Your task to perform on an android device: set the timer Image 0: 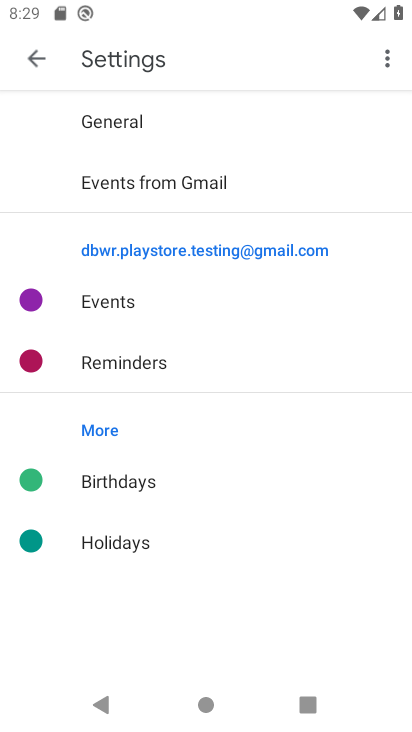
Step 0: press home button
Your task to perform on an android device: set the timer Image 1: 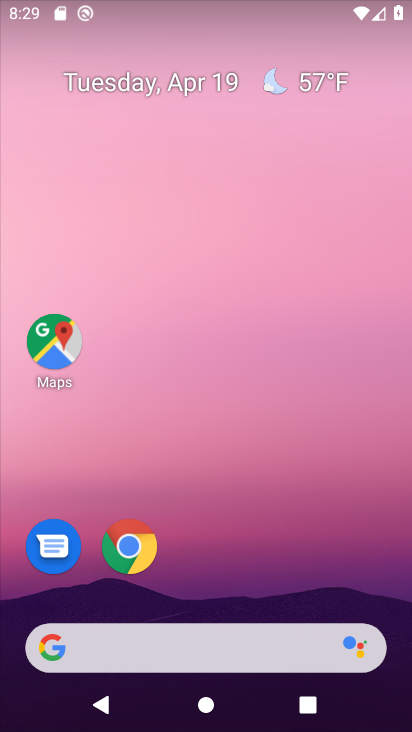
Step 1: drag from (230, 583) to (384, 19)
Your task to perform on an android device: set the timer Image 2: 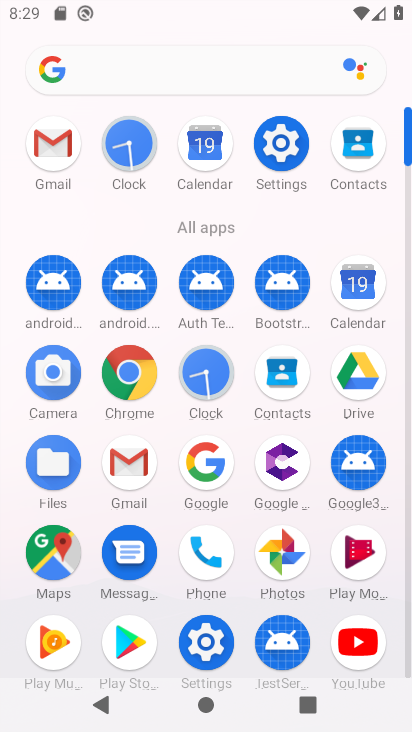
Step 2: click (213, 384)
Your task to perform on an android device: set the timer Image 3: 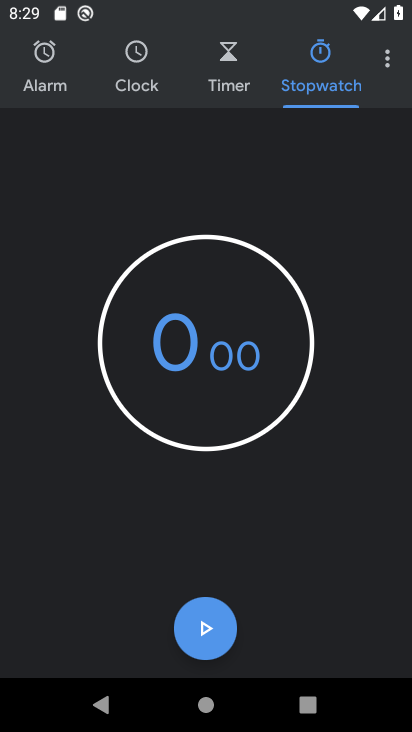
Step 3: click (218, 76)
Your task to perform on an android device: set the timer Image 4: 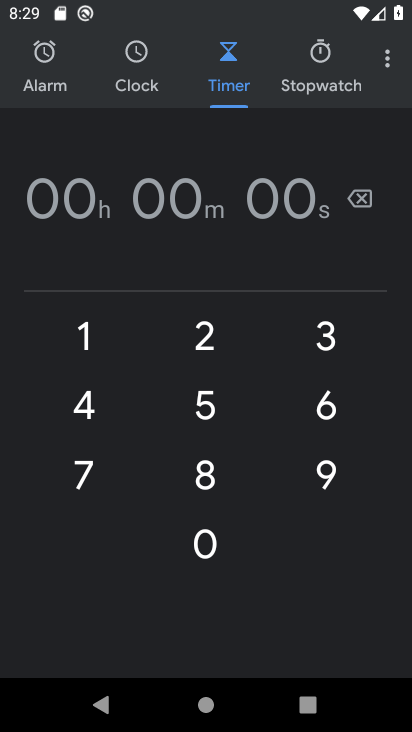
Step 4: click (210, 408)
Your task to perform on an android device: set the timer Image 5: 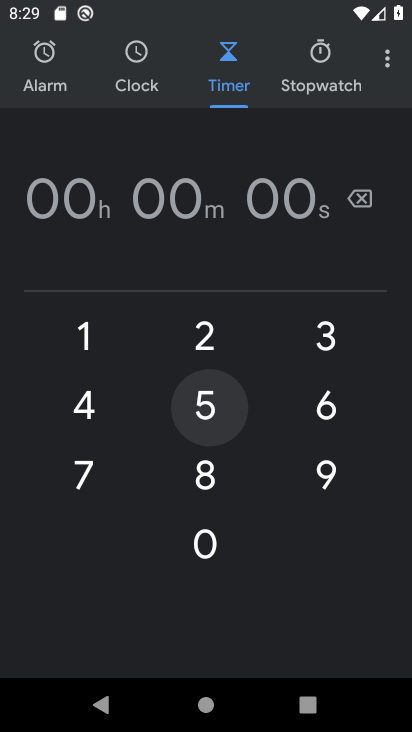
Step 5: click (198, 476)
Your task to perform on an android device: set the timer Image 6: 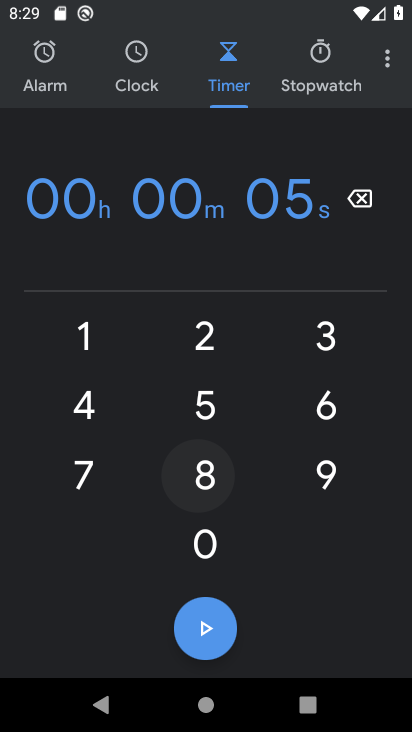
Step 6: click (103, 467)
Your task to perform on an android device: set the timer Image 7: 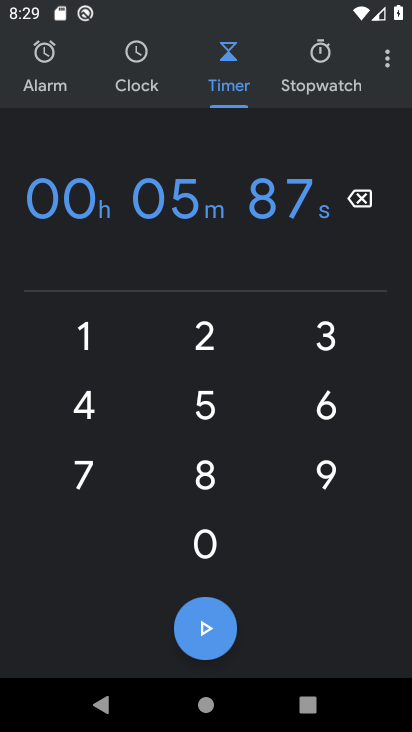
Step 7: click (219, 619)
Your task to perform on an android device: set the timer Image 8: 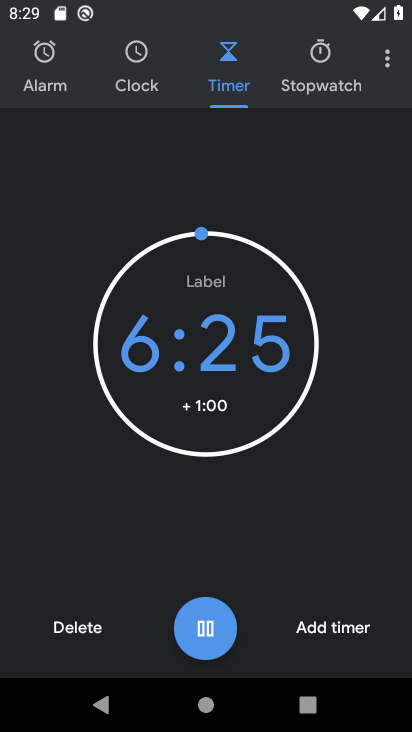
Step 8: task complete